Your task to perform on an android device: Go to CNN.com Image 0: 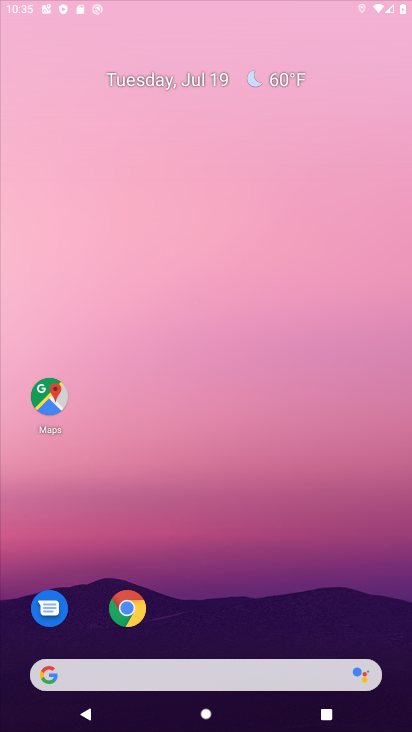
Step 0: click (322, 38)
Your task to perform on an android device: Go to CNN.com Image 1: 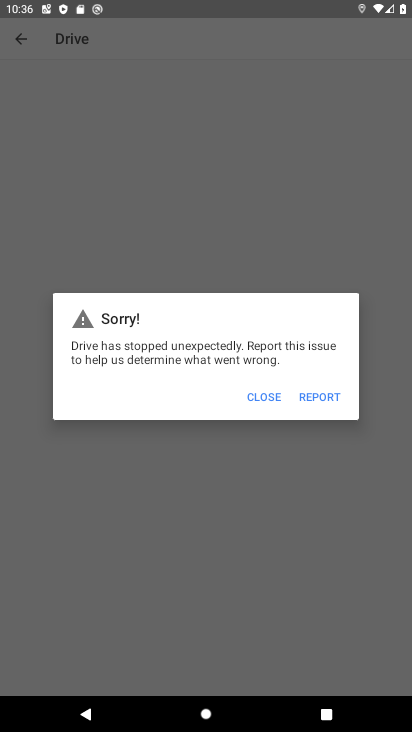
Step 1: press home button
Your task to perform on an android device: Go to CNN.com Image 2: 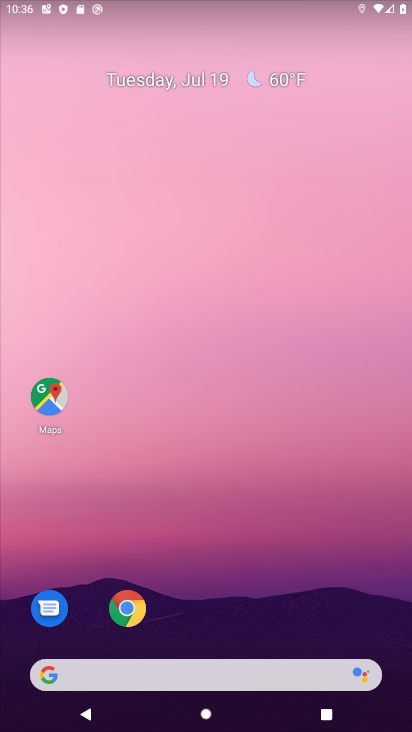
Step 2: click (136, 612)
Your task to perform on an android device: Go to CNN.com Image 3: 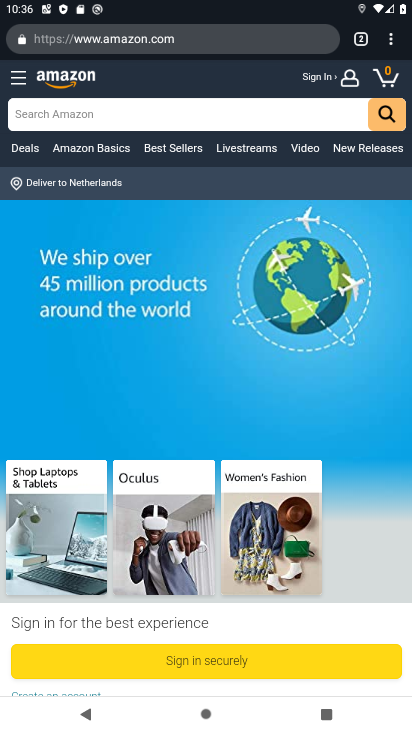
Step 3: click (352, 35)
Your task to perform on an android device: Go to CNN.com Image 4: 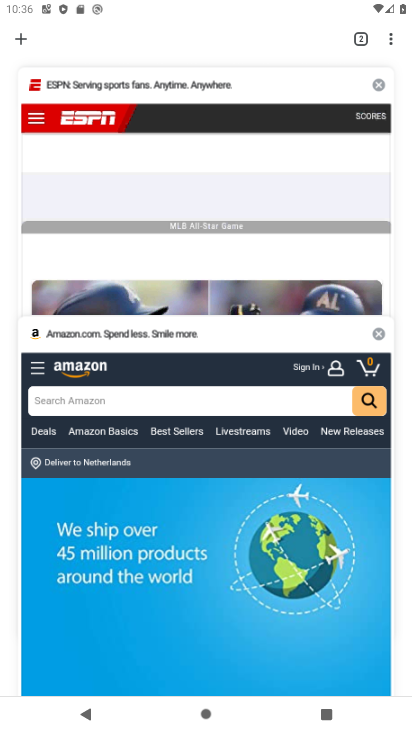
Step 4: click (24, 35)
Your task to perform on an android device: Go to CNN.com Image 5: 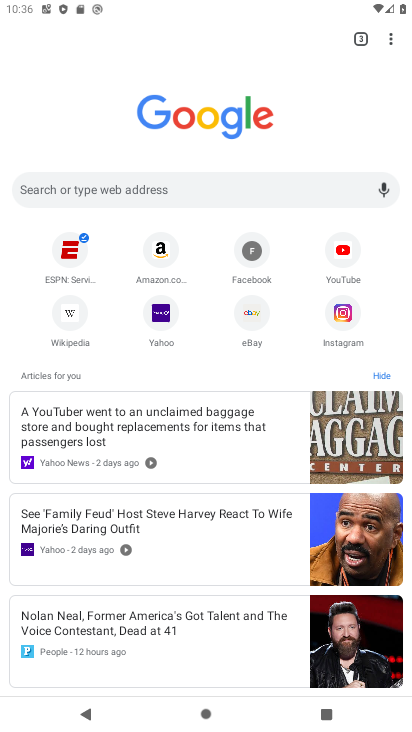
Step 5: click (178, 202)
Your task to perform on an android device: Go to CNN.com Image 6: 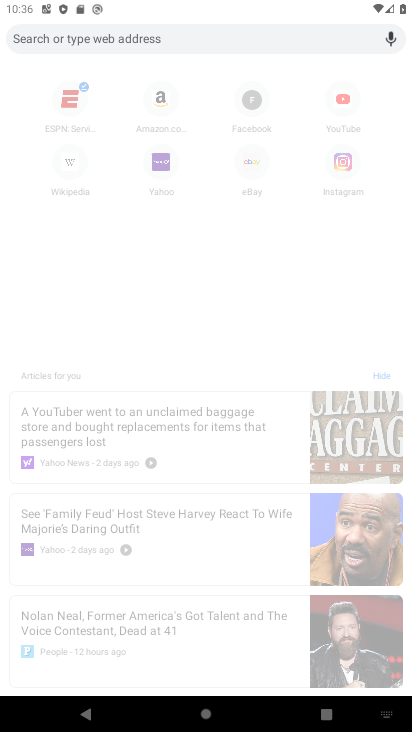
Step 6: type "cnn"
Your task to perform on an android device: Go to CNN.com Image 7: 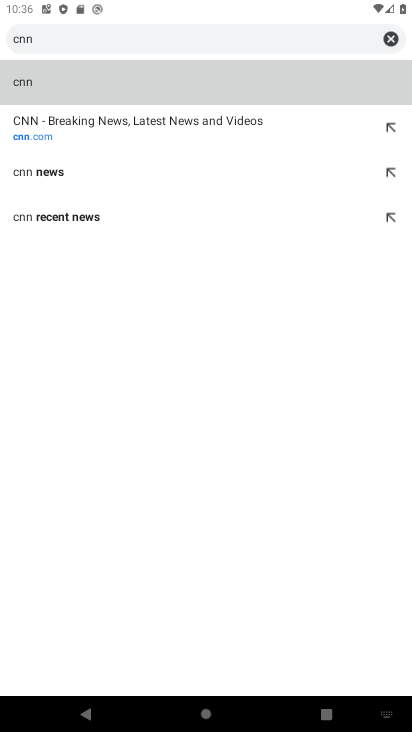
Step 7: click (101, 118)
Your task to perform on an android device: Go to CNN.com Image 8: 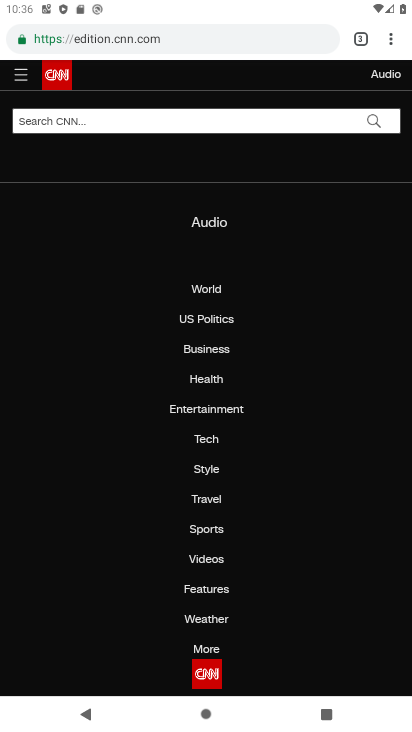
Step 8: task complete